Your task to perform on an android device: manage bookmarks in the chrome app Image 0: 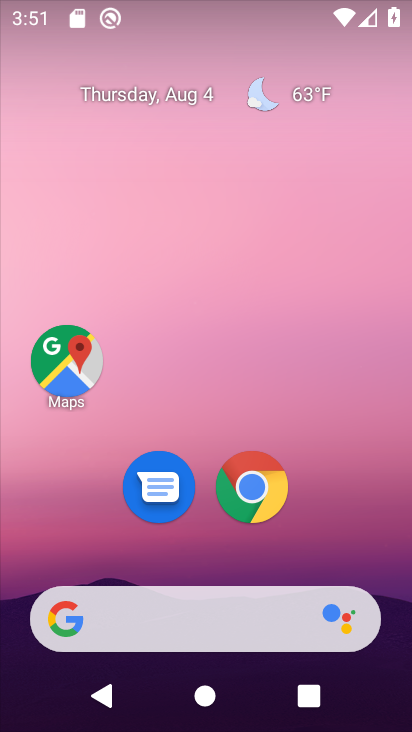
Step 0: click (240, 491)
Your task to perform on an android device: manage bookmarks in the chrome app Image 1: 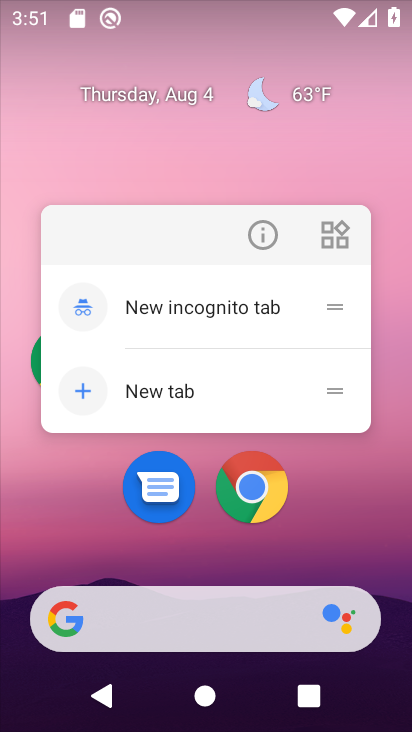
Step 1: click (244, 478)
Your task to perform on an android device: manage bookmarks in the chrome app Image 2: 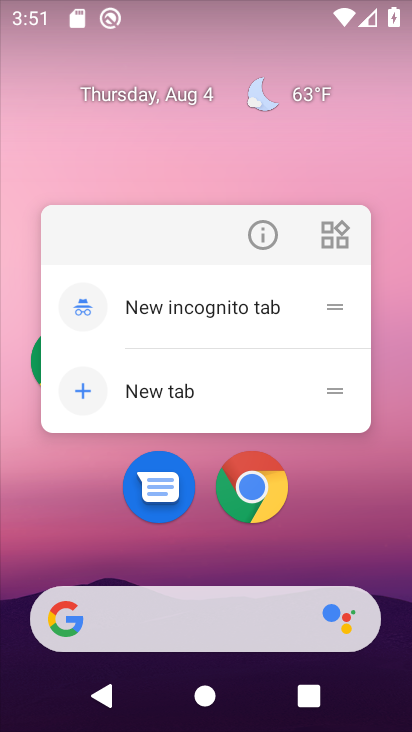
Step 2: click (264, 480)
Your task to perform on an android device: manage bookmarks in the chrome app Image 3: 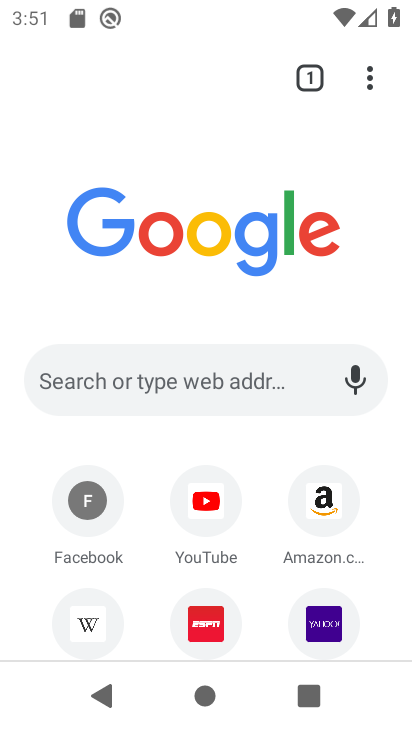
Step 3: drag from (370, 80) to (120, 290)
Your task to perform on an android device: manage bookmarks in the chrome app Image 4: 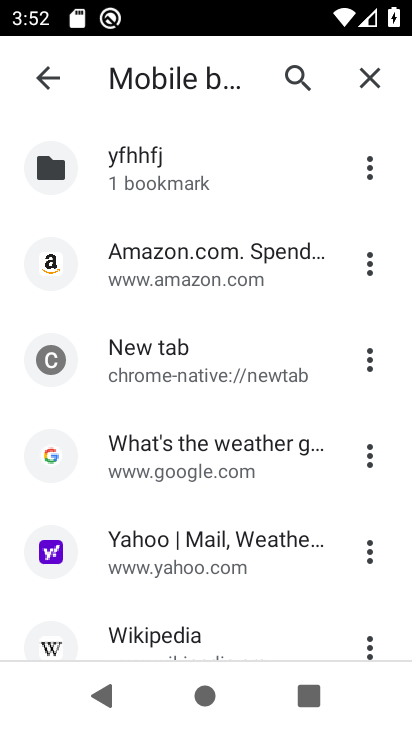
Step 4: click (372, 262)
Your task to perform on an android device: manage bookmarks in the chrome app Image 5: 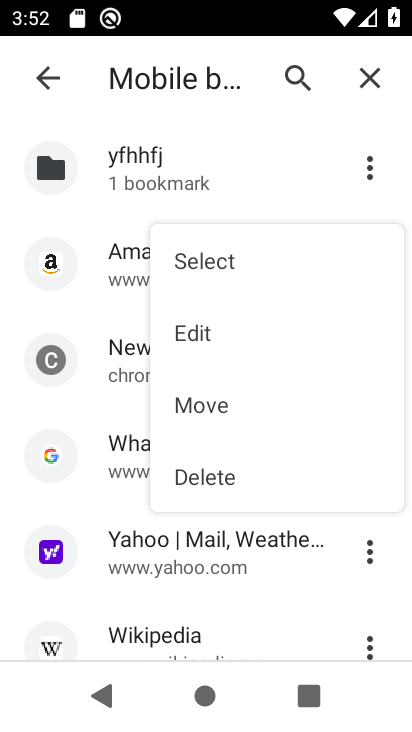
Step 5: click (213, 469)
Your task to perform on an android device: manage bookmarks in the chrome app Image 6: 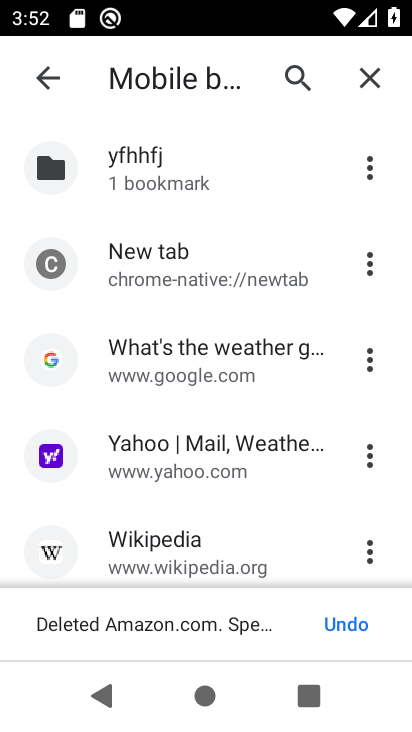
Step 6: task complete